Your task to perform on an android device: turn on priority inbox in the gmail app Image 0: 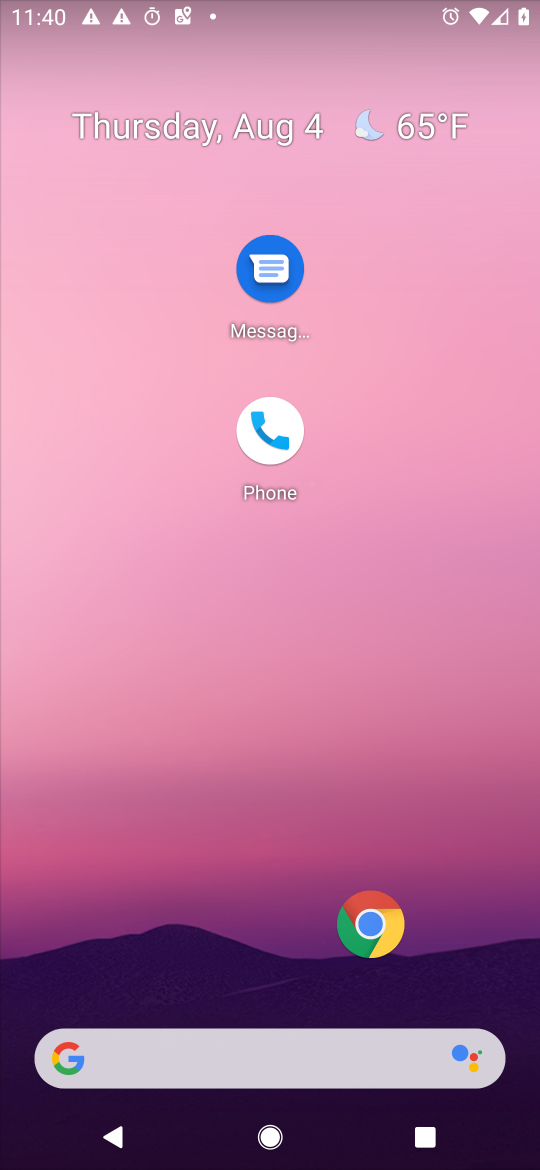
Step 0: drag from (270, 514) to (275, 441)
Your task to perform on an android device: turn on priority inbox in the gmail app Image 1: 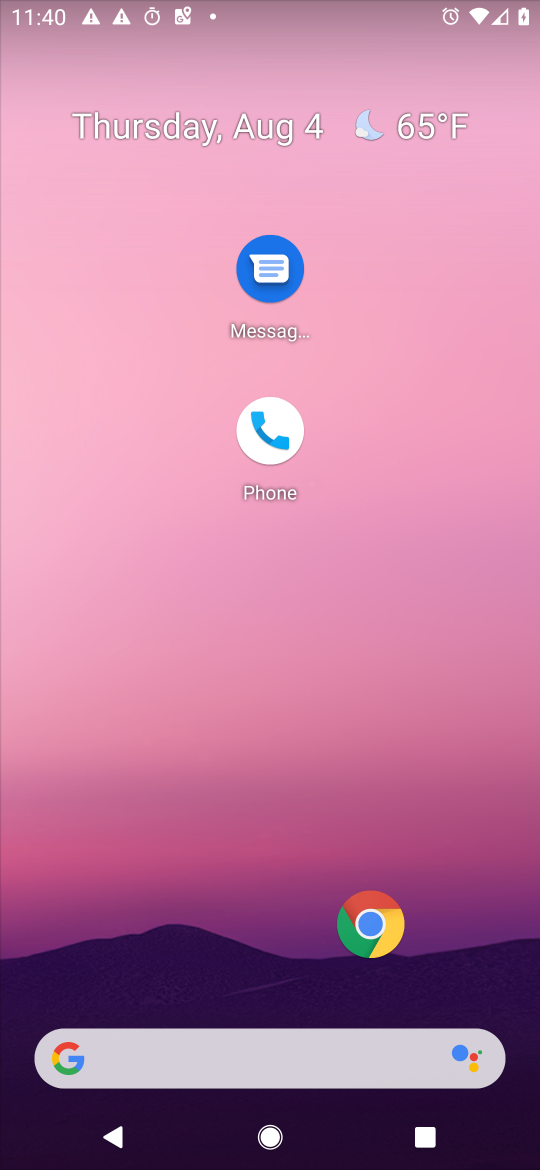
Step 1: drag from (230, 545) to (236, 154)
Your task to perform on an android device: turn on priority inbox in the gmail app Image 2: 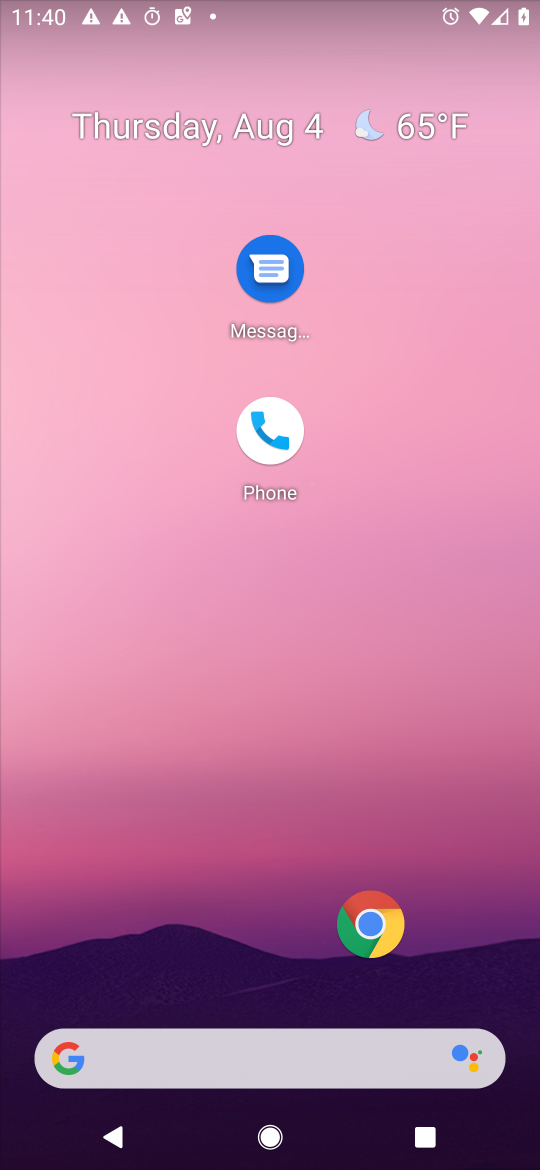
Step 2: drag from (314, 874) to (284, 178)
Your task to perform on an android device: turn on priority inbox in the gmail app Image 3: 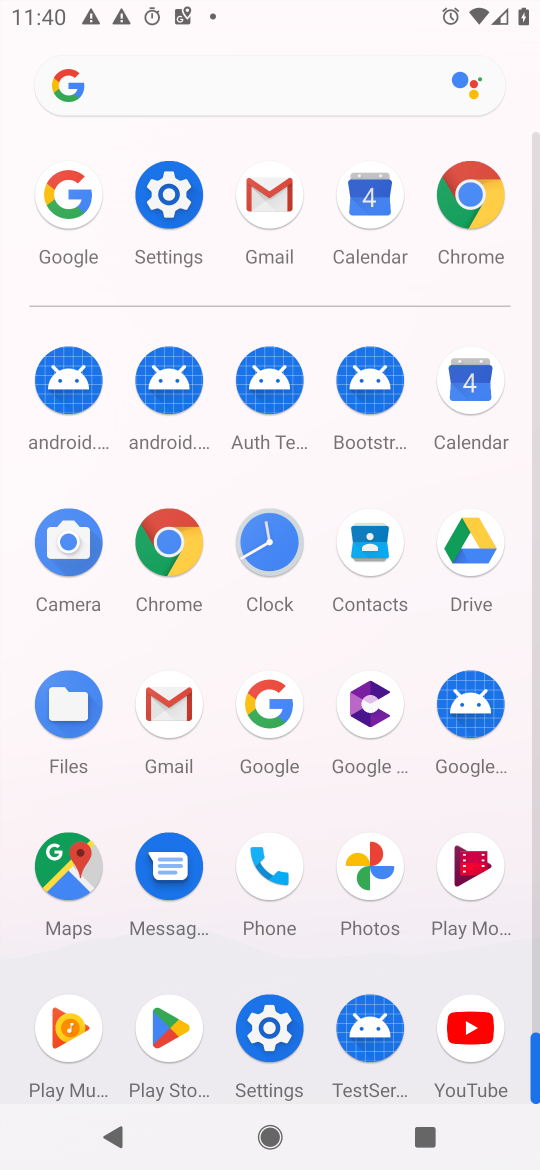
Step 3: click (176, 689)
Your task to perform on an android device: turn on priority inbox in the gmail app Image 4: 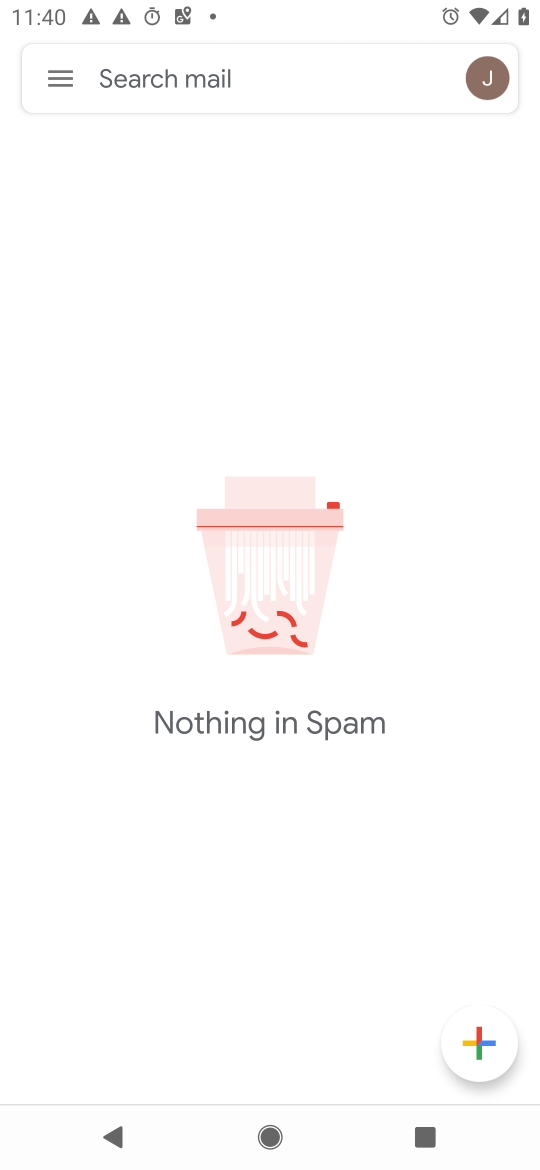
Step 4: click (58, 94)
Your task to perform on an android device: turn on priority inbox in the gmail app Image 5: 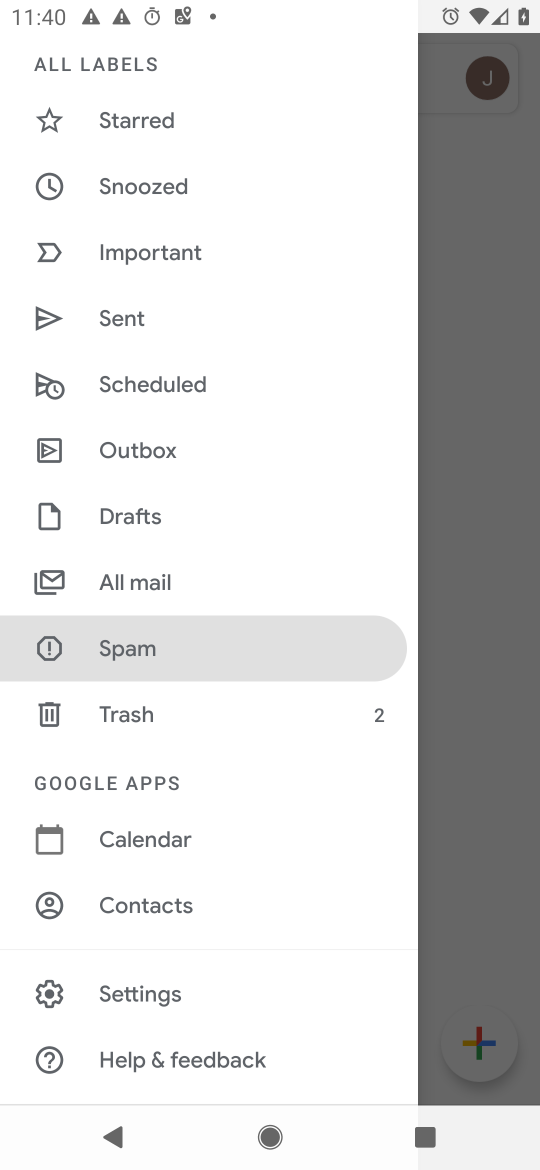
Step 5: click (177, 998)
Your task to perform on an android device: turn on priority inbox in the gmail app Image 6: 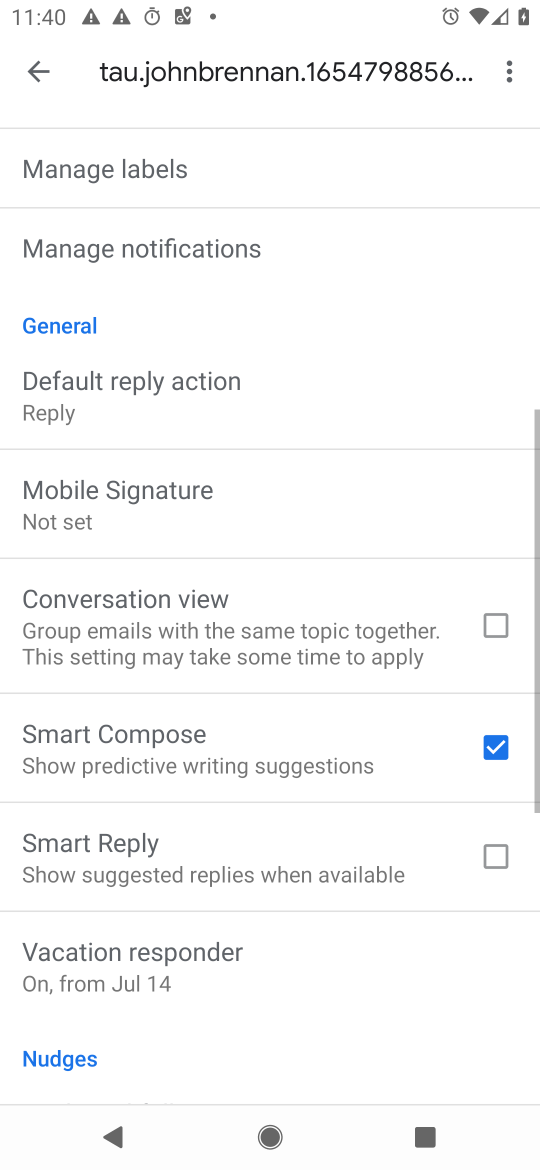
Step 6: drag from (288, 945) to (194, 208)
Your task to perform on an android device: turn on priority inbox in the gmail app Image 7: 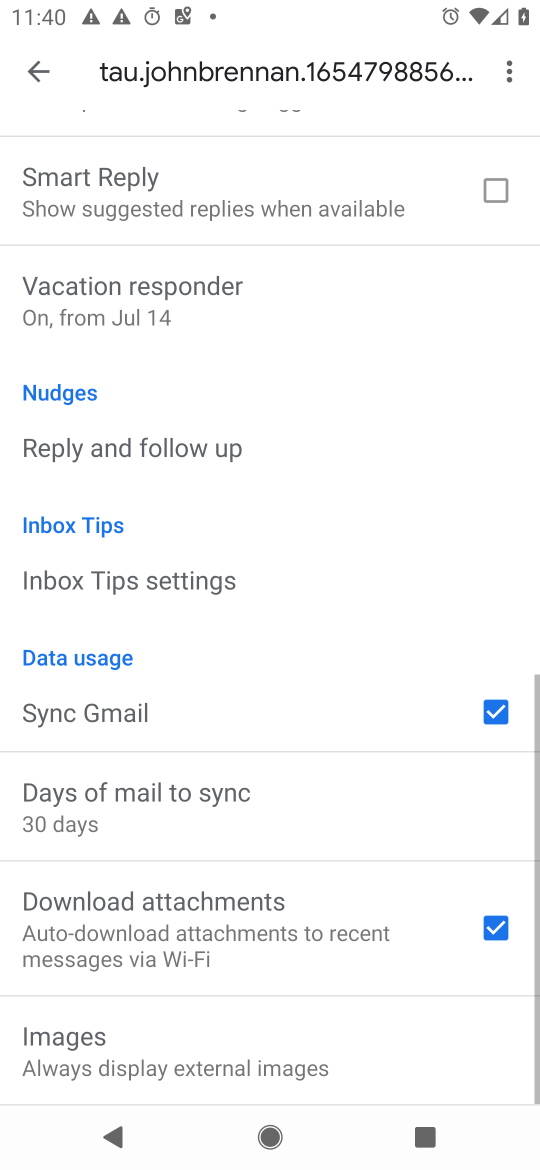
Step 7: drag from (277, 936) to (226, 498)
Your task to perform on an android device: turn on priority inbox in the gmail app Image 8: 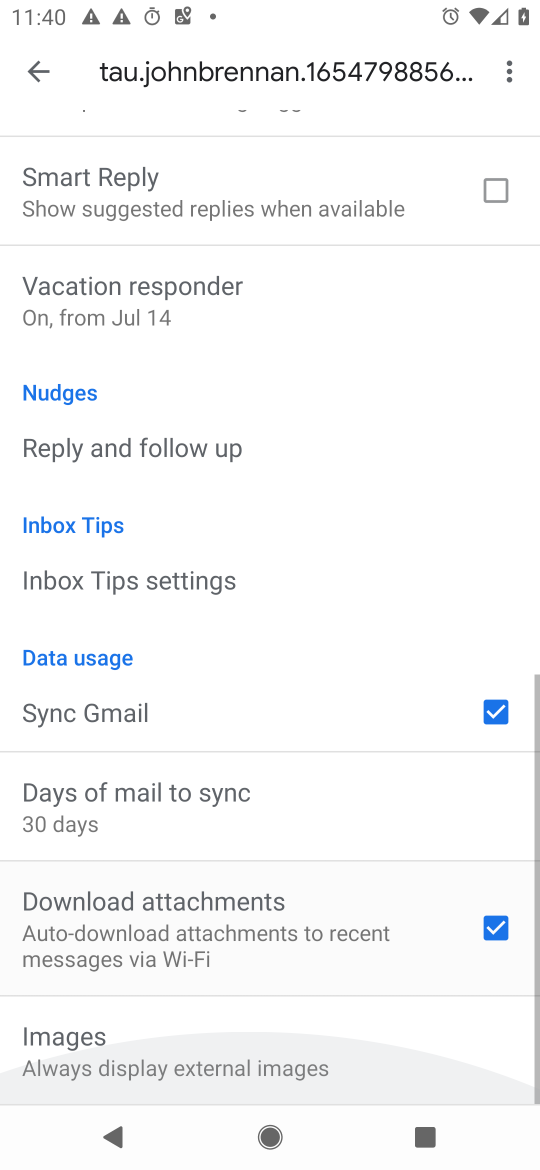
Step 8: drag from (199, 556) to (322, 1165)
Your task to perform on an android device: turn on priority inbox in the gmail app Image 9: 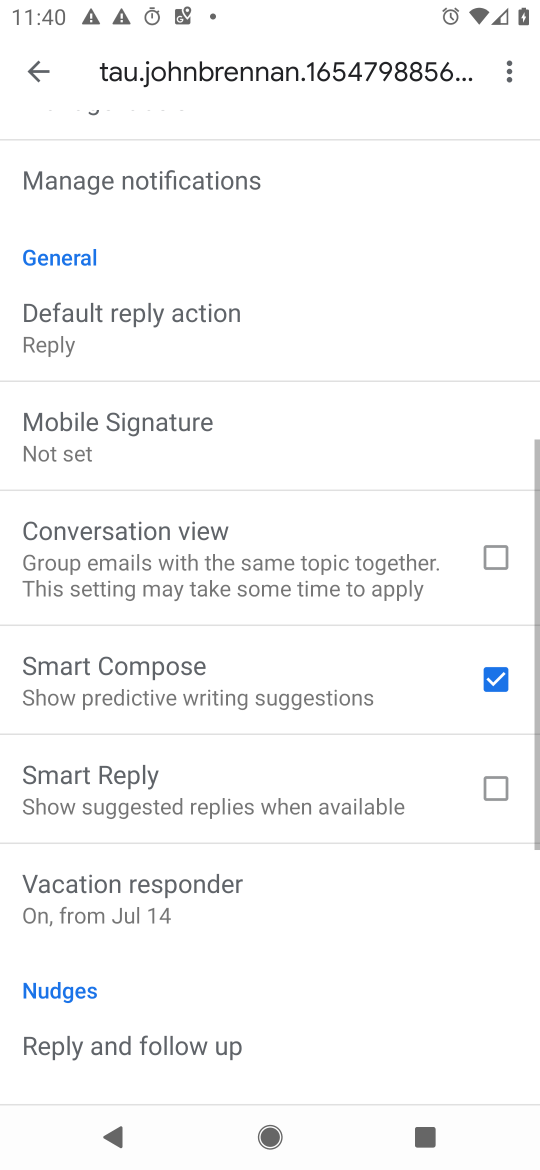
Step 9: drag from (219, 309) to (356, 1156)
Your task to perform on an android device: turn on priority inbox in the gmail app Image 10: 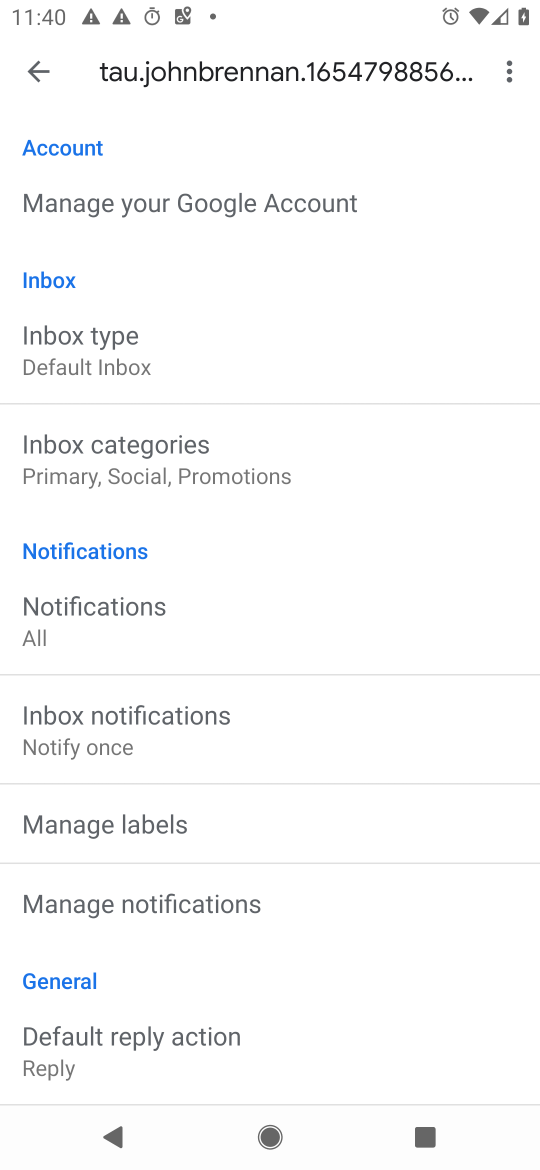
Step 10: drag from (171, 348) to (395, 1116)
Your task to perform on an android device: turn on priority inbox in the gmail app Image 11: 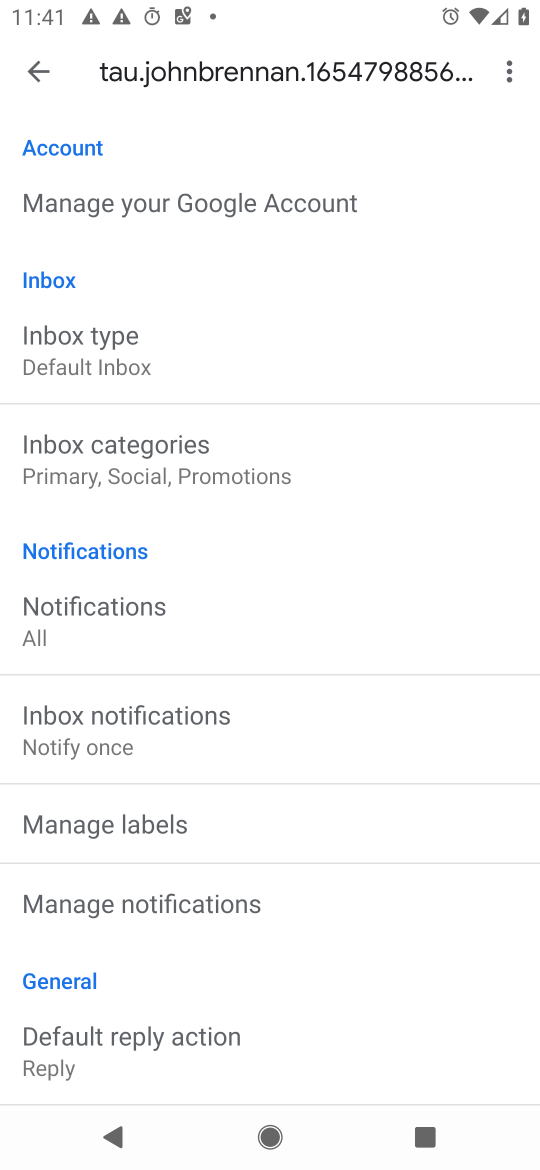
Step 11: click (137, 352)
Your task to perform on an android device: turn on priority inbox in the gmail app Image 12: 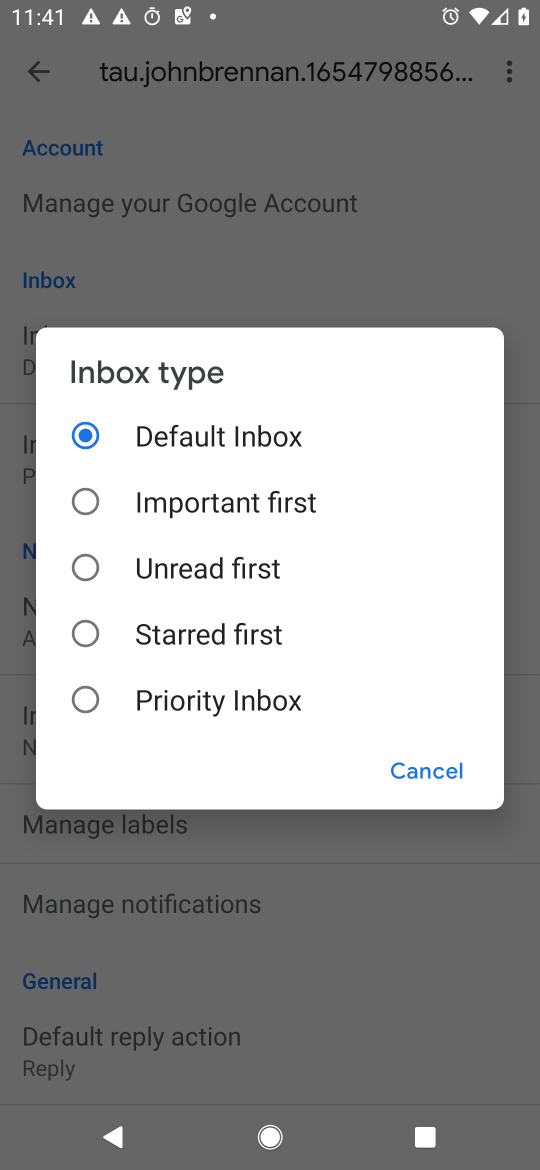
Step 12: click (130, 700)
Your task to perform on an android device: turn on priority inbox in the gmail app Image 13: 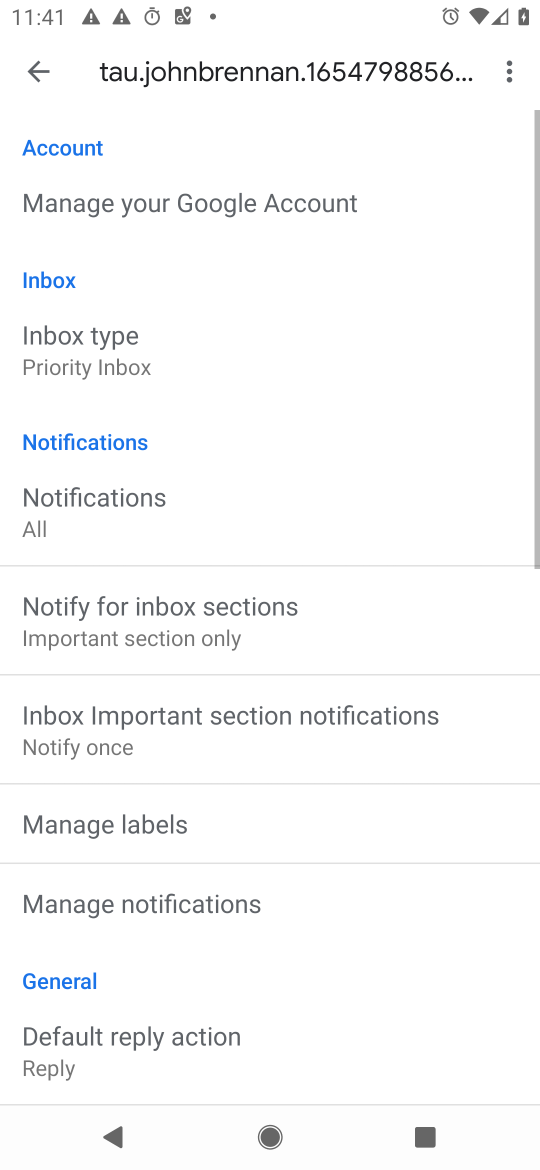
Step 13: task complete